Your task to perform on an android device: Go to Google maps Image 0: 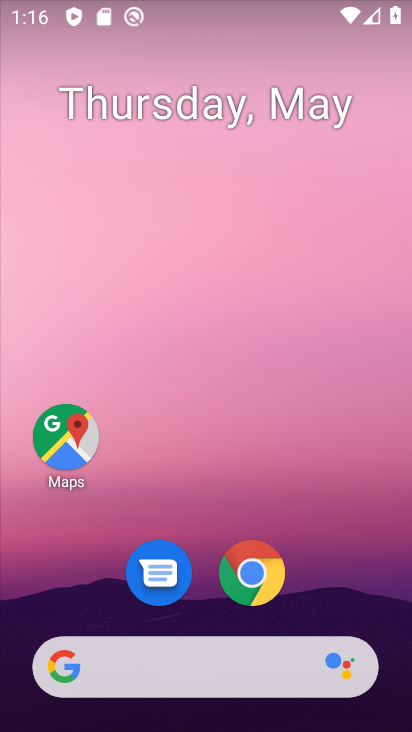
Step 0: click (55, 435)
Your task to perform on an android device: Go to Google maps Image 1: 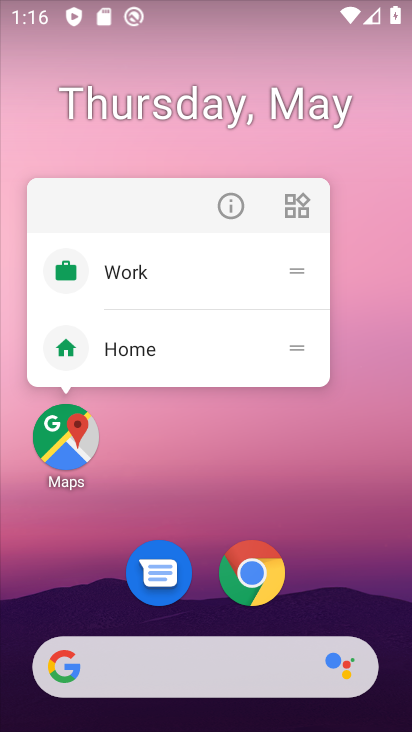
Step 1: click (91, 440)
Your task to perform on an android device: Go to Google maps Image 2: 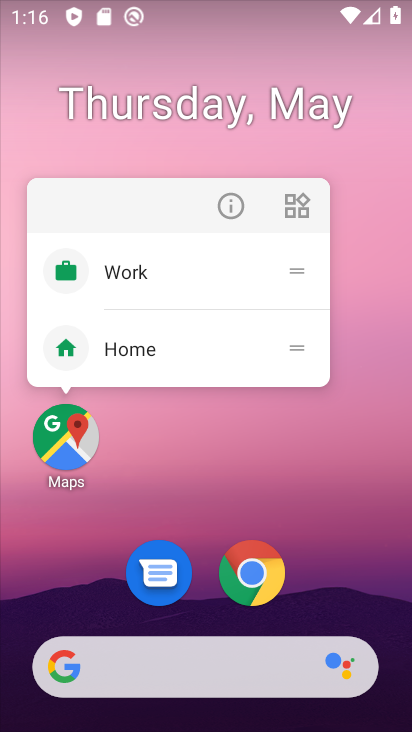
Step 2: click (181, 438)
Your task to perform on an android device: Go to Google maps Image 3: 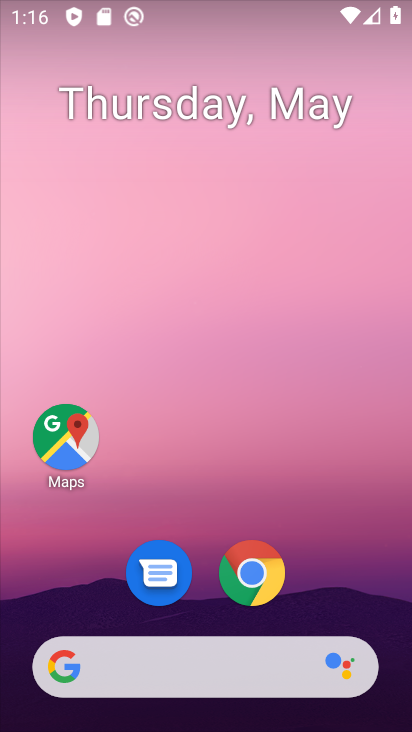
Step 3: drag from (180, 460) to (194, 4)
Your task to perform on an android device: Go to Google maps Image 4: 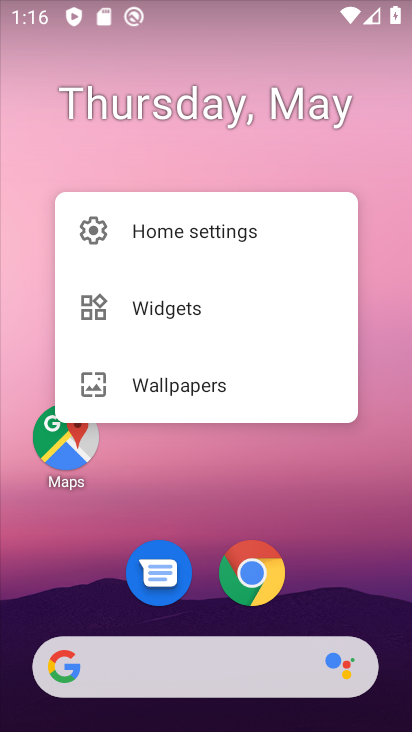
Step 4: drag from (252, 486) to (268, 74)
Your task to perform on an android device: Go to Google maps Image 5: 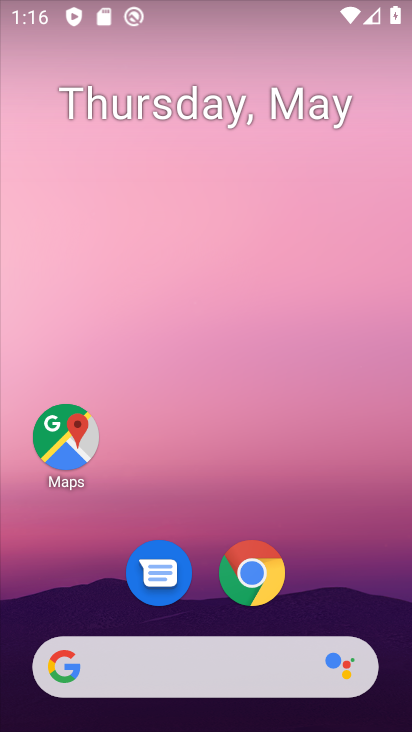
Step 5: drag from (203, 437) to (213, 50)
Your task to perform on an android device: Go to Google maps Image 6: 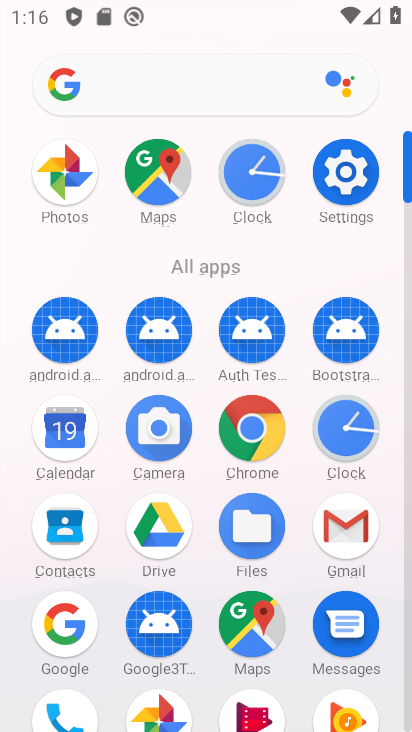
Step 6: click (246, 620)
Your task to perform on an android device: Go to Google maps Image 7: 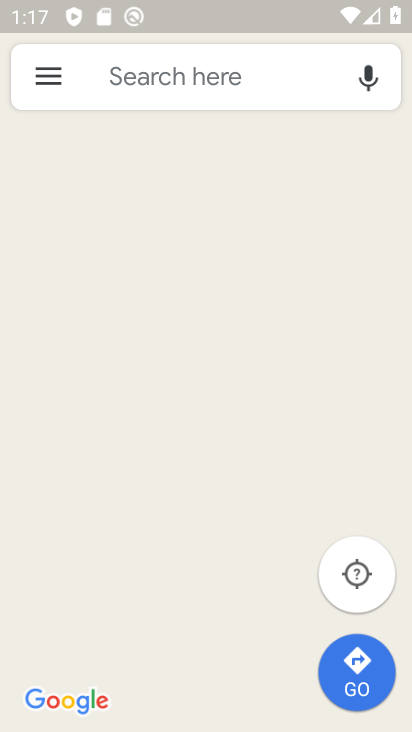
Step 7: task complete